Your task to perform on an android device: toggle show notifications on the lock screen Image 0: 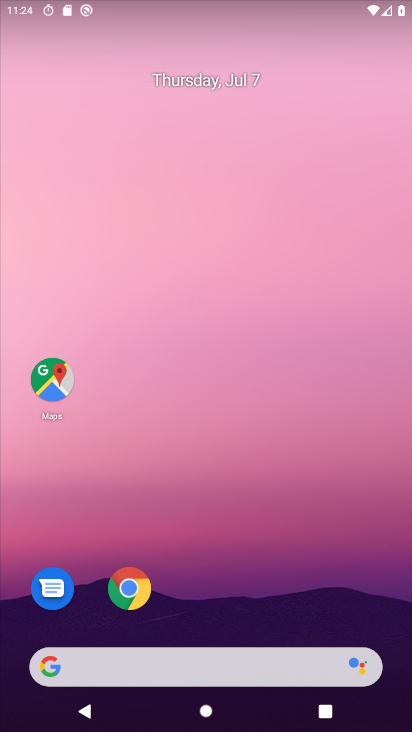
Step 0: drag from (135, 657) to (249, 146)
Your task to perform on an android device: toggle show notifications on the lock screen Image 1: 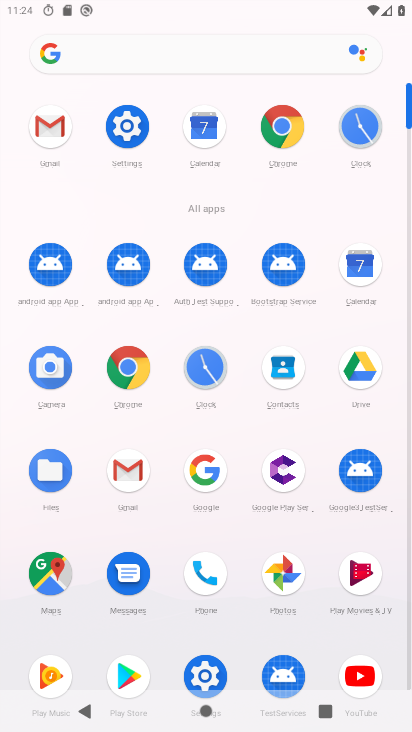
Step 1: click (127, 121)
Your task to perform on an android device: toggle show notifications on the lock screen Image 2: 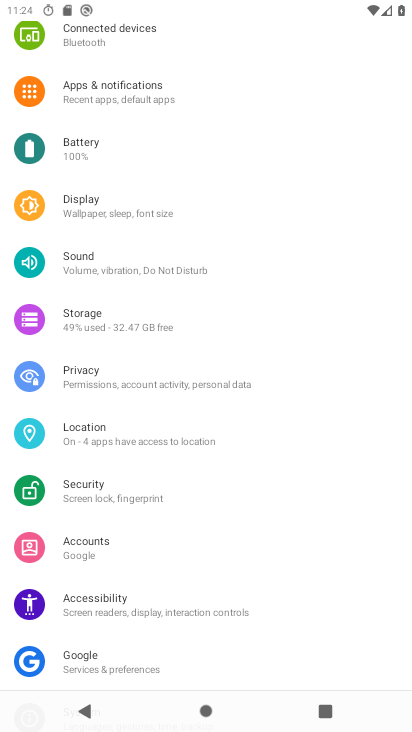
Step 2: click (122, 86)
Your task to perform on an android device: toggle show notifications on the lock screen Image 3: 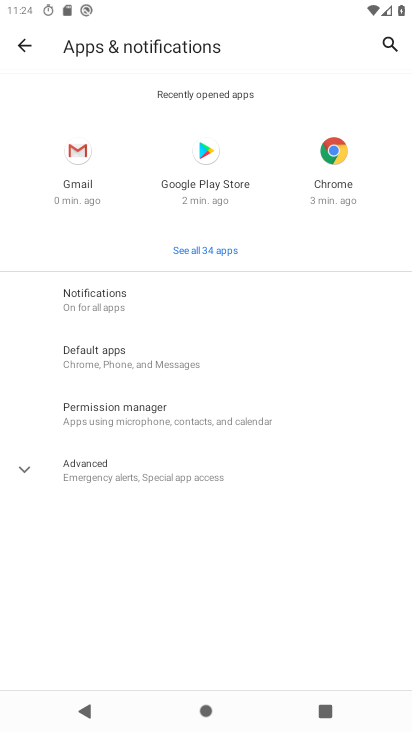
Step 3: click (109, 298)
Your task to perform on an android device: toggle show notifications on the lock screen Image 4: 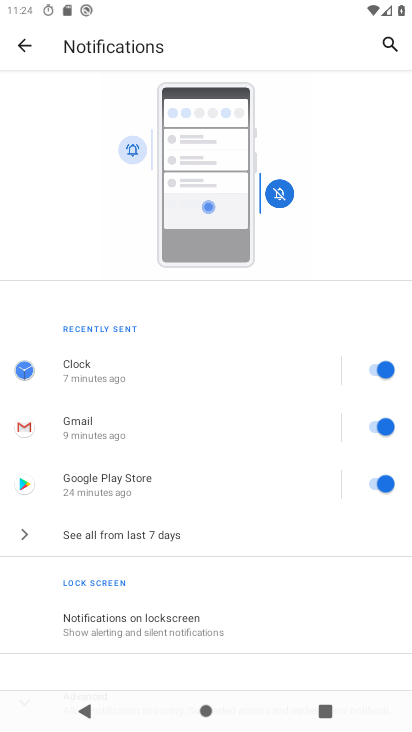
Step 4: drag from (222, 602) to (258, 302)
Your task to perform on an android device: toggle show notifications on the lock screen Image 5: 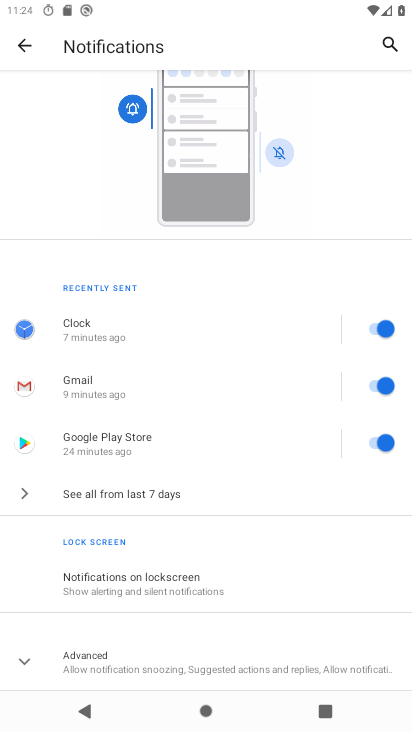
Step 5: click (170, 578)
Your task to perform on an android device: toggle show notifications on the lock screen Image 6: 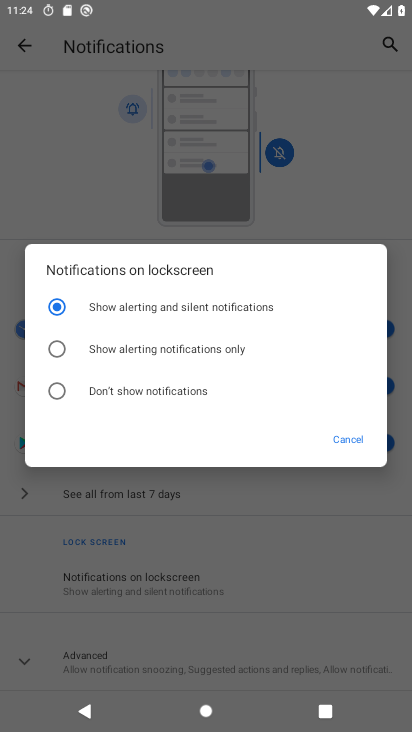
Step 6: click (57, 392)
Your task to perform on an android device: toggle show notifications on the lock screen Image 7: 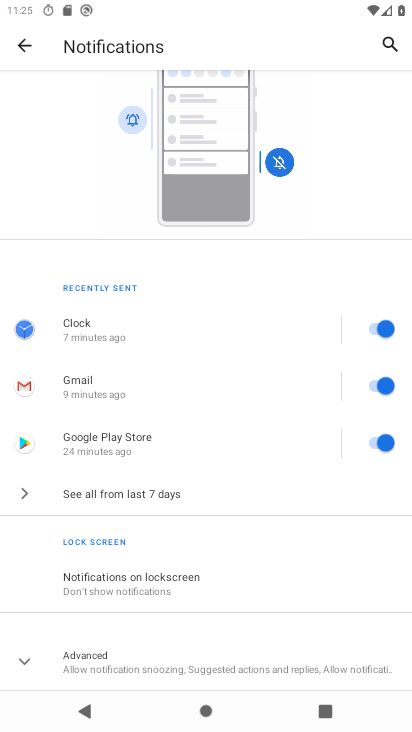
Step 7: task complete